Your task to perform on an android device: Open ESPN.com Image 0: 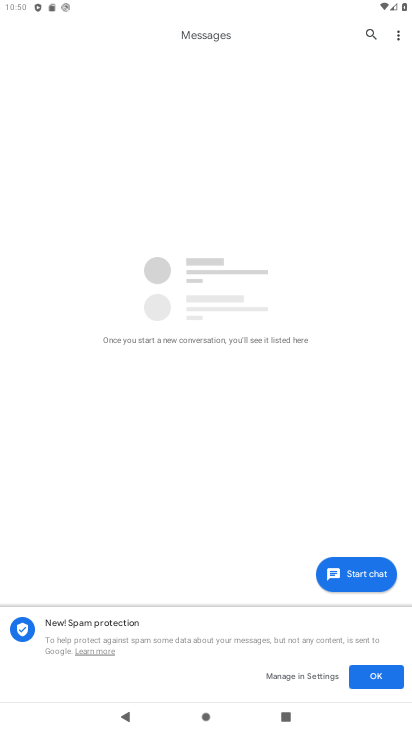
Step 0: press home button
Your task to perform on an android device: Open ESPN.com Image 1: 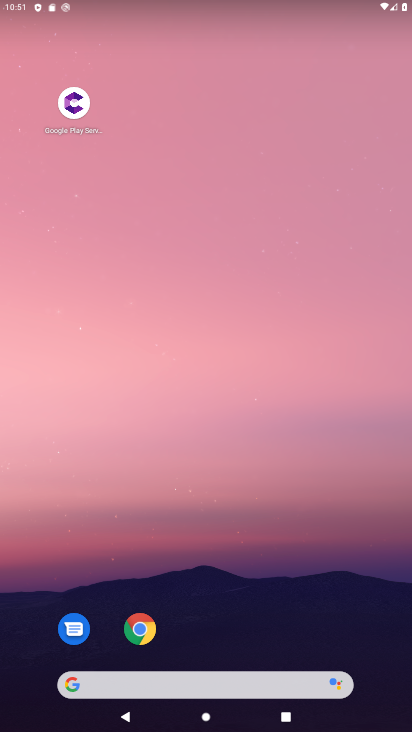
Step 1: click (148, 634)
Your task to perform on an android device: Open ESPN.com Image 2: 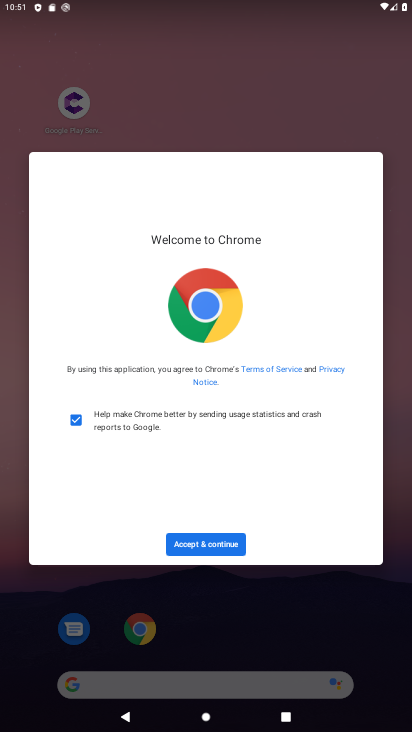
Step 2: click (212, 541)
Your task to perform on an android device: Open ESPN.com Image 3: 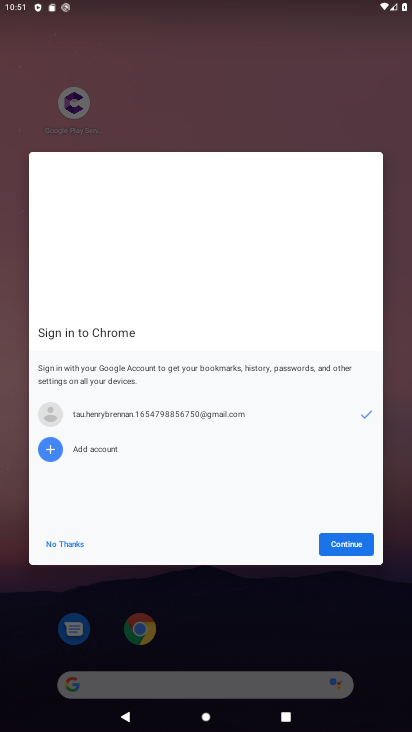
Step 3: click (353, 549)
Your task to perform on an android device: Open ESPN.com Image 4: 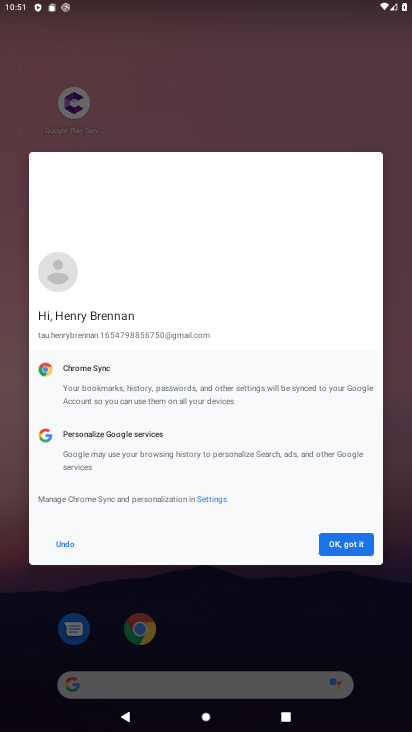
Step 4: click (352, 544)
Your task to perform on an android device: Open ESPN.com Image 5: 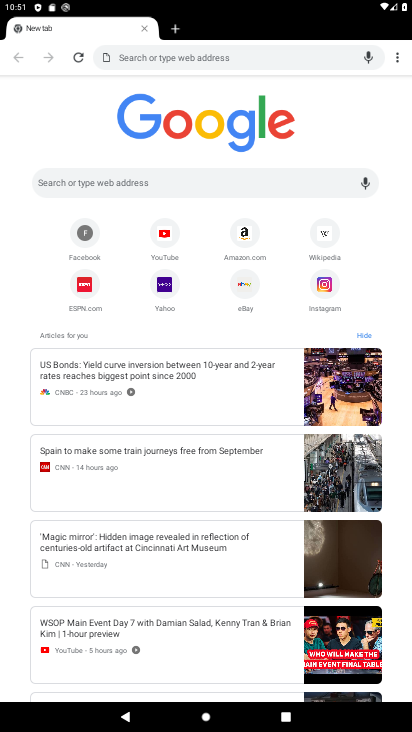
Step 5: click (204, 181)
Your task to perform on an android device: Open ESPN.com Image 6: 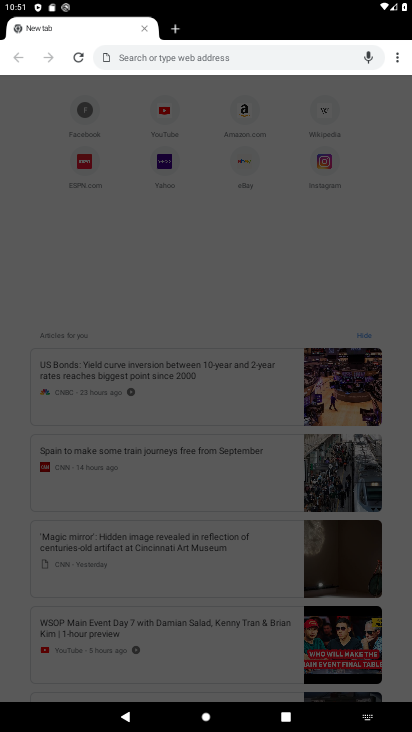
Step 6: type "ESPN.com"
Your task to perform on an android device: Open ESPN.com Image 7: 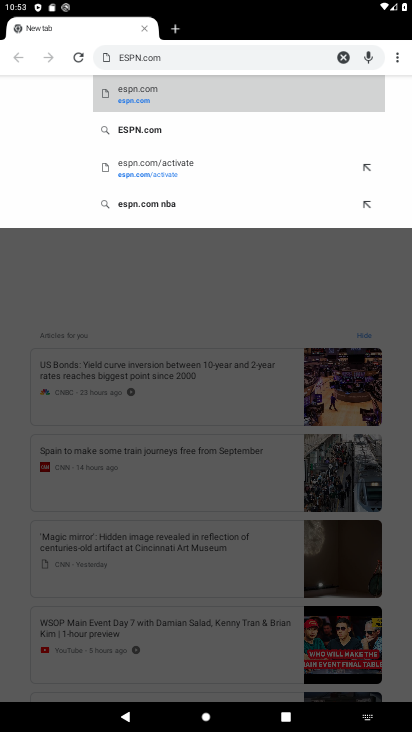
Step 7: click (127, 131)
Your task to perform on an android device: Open ESPN.com Image 8: 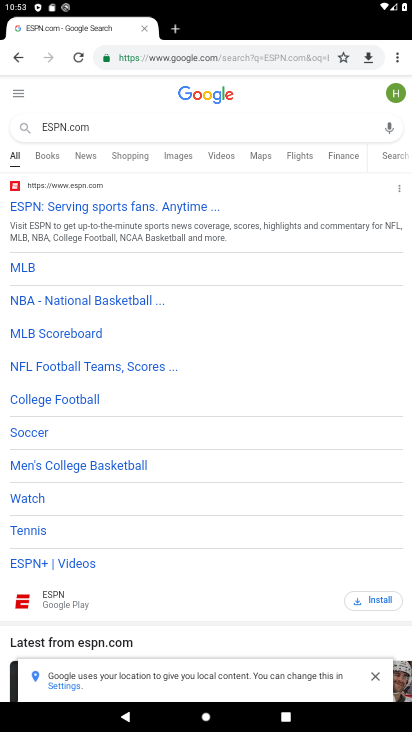
Step 8: task complete